Your task to perform on an android device: Go to privacy settings Image 0: 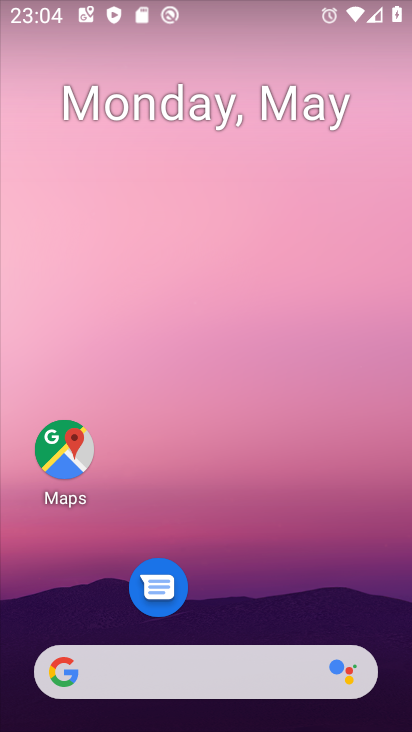
Step 0: drag from (194, 624) to (172, 32)
Your task to perform on an android device: Go to privacy settings Image 1: 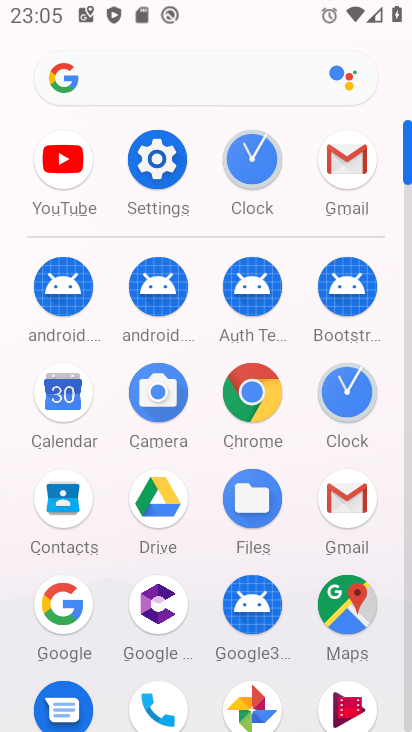
Step 1: click (143, 166)
Your task to perform on an android device: Go to privacy settings Image 2: 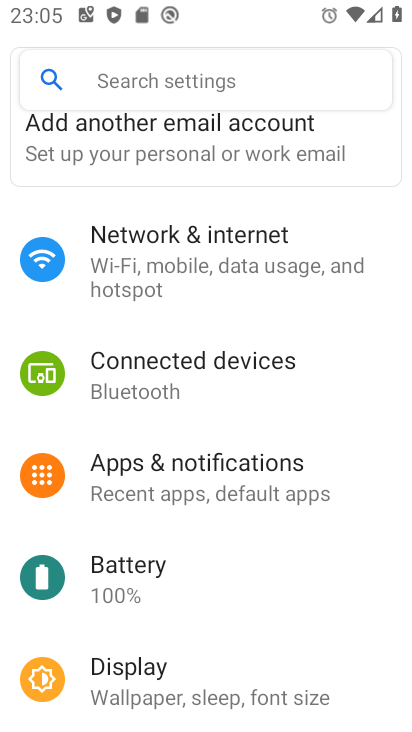
Step 2: drag from (167, 685) to (151, 129)
Your task to perform on an android device: Go to privacy settings Image 3: 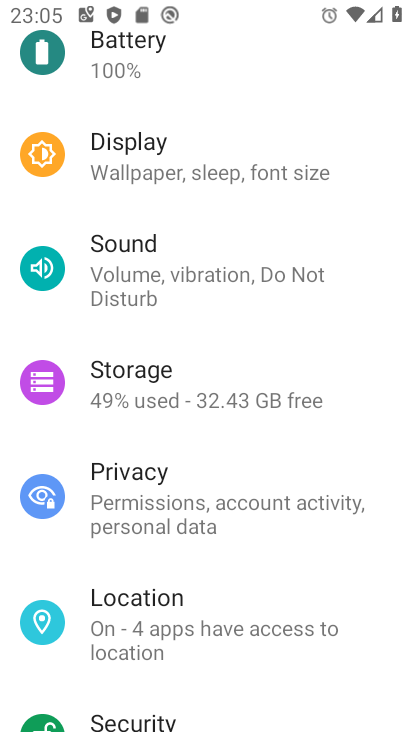
Step 3: click (154, 512)
Your task to perform on an android device: Go to privacy settings Image 4: 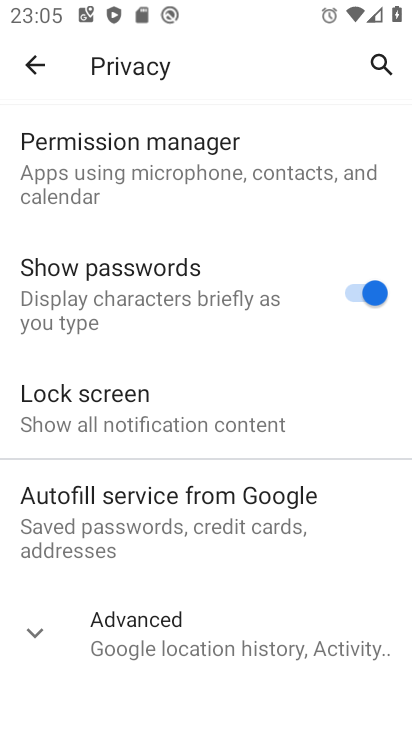
Step 4: click (143, 613)
Your task to perform on an android device: Go to privacy settings Image 5: 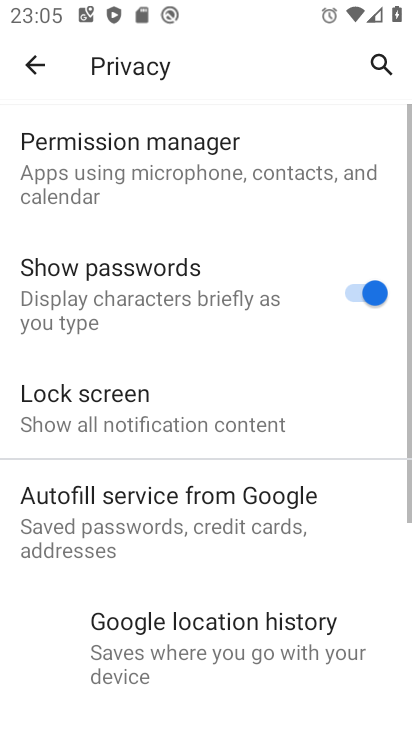
Step 5: task complete